Your task to perform on an android device: Is it going to rain today? Image 0: 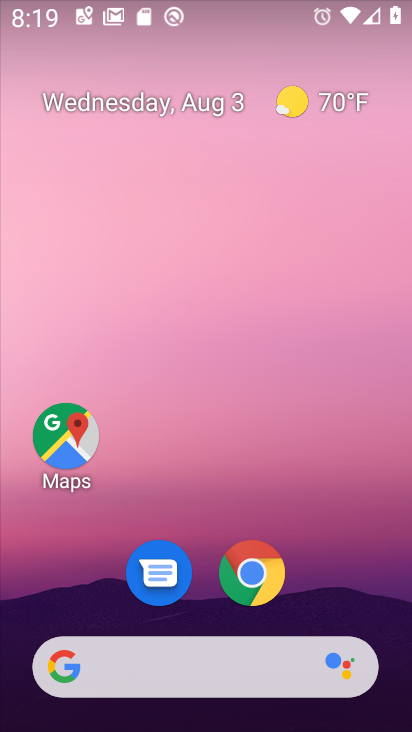
Step 0: click (331, 99)
Your task to perform on an android device: Is it going to rain today? Image 1: 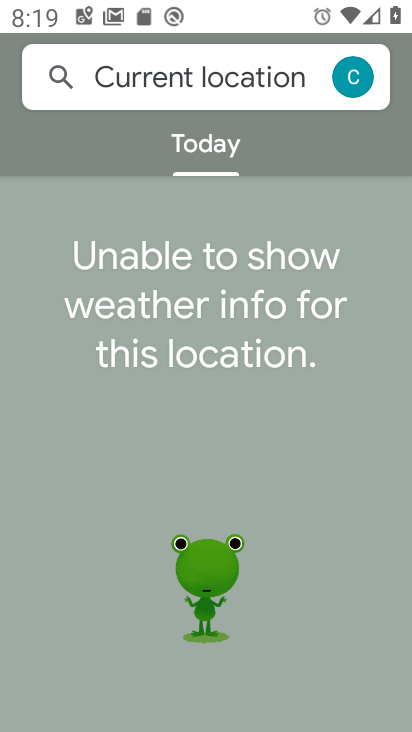
Step 1: click (248, 364)
Your task to perform on an android device: Is it going to rain today? Image 2: 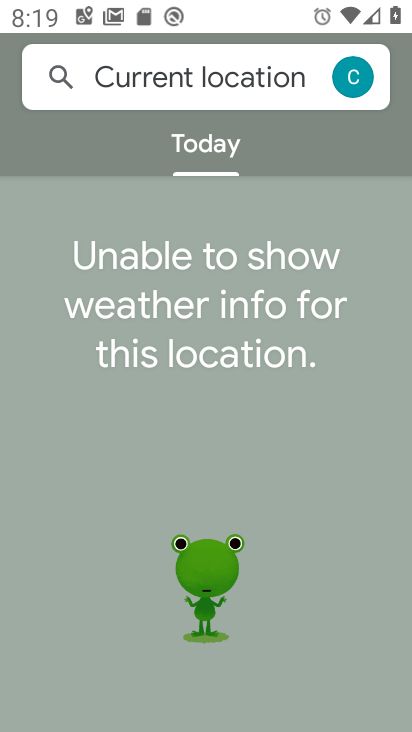
Step 2: drag from (277, 361) to (7, 472)
Your task to perform on an android device: Is it going to rain today? Image 3: 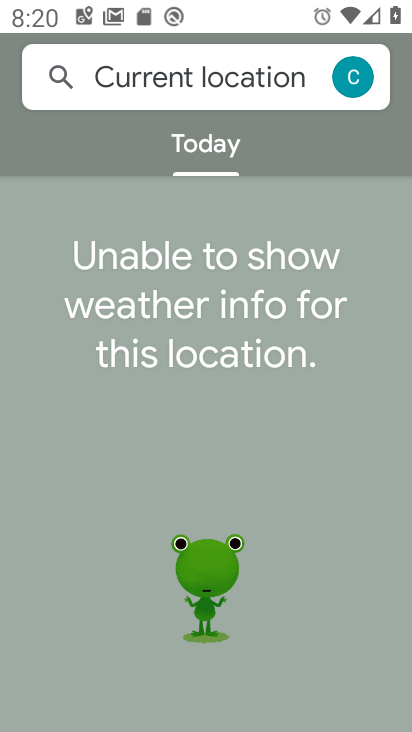
Step 3: press back button
Your task to perform on an android device: Is it going to rain today? Image 4: 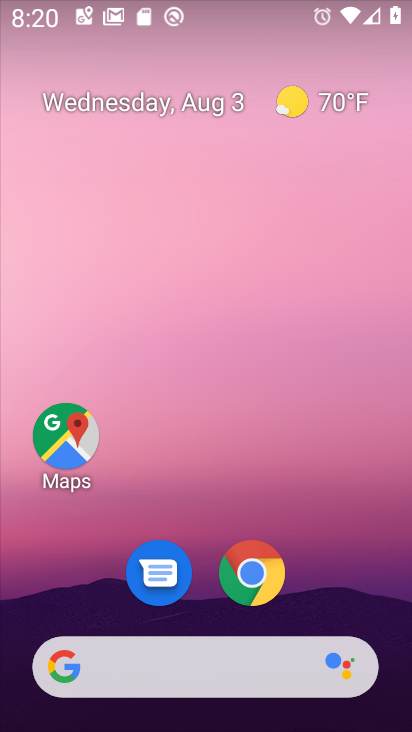
Step 4: click (169, 673)
Your task to perform on an android device: Is it going to rain today? Image 5: 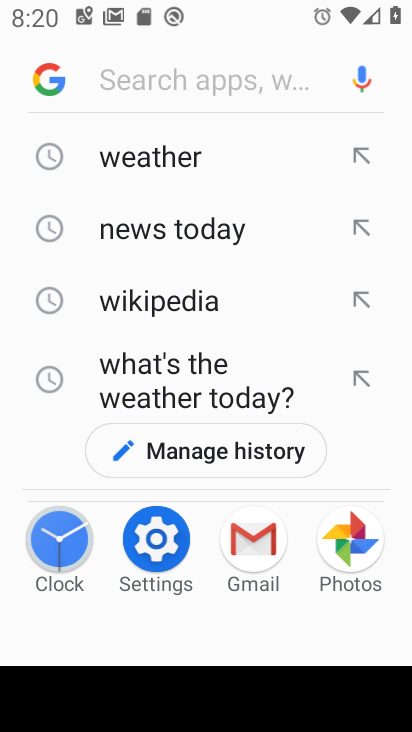
Step 5: click (127, 160)
Your task to perform on an android device: Is it going to rain today? Image 6: 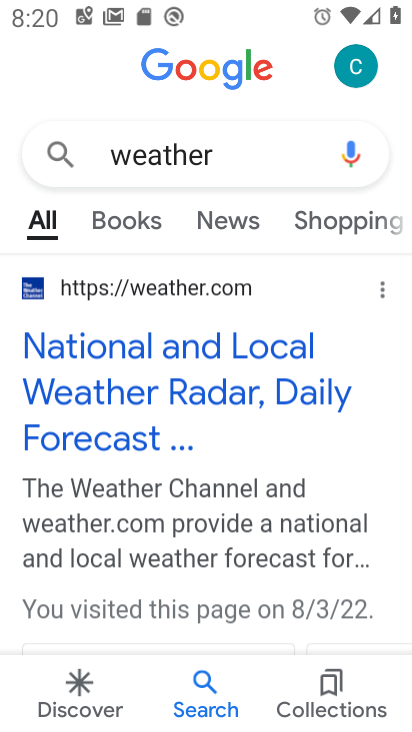
Step 6: click (120, 294)
Your task to perform on an android device: Is it going to rain today? Image 7: 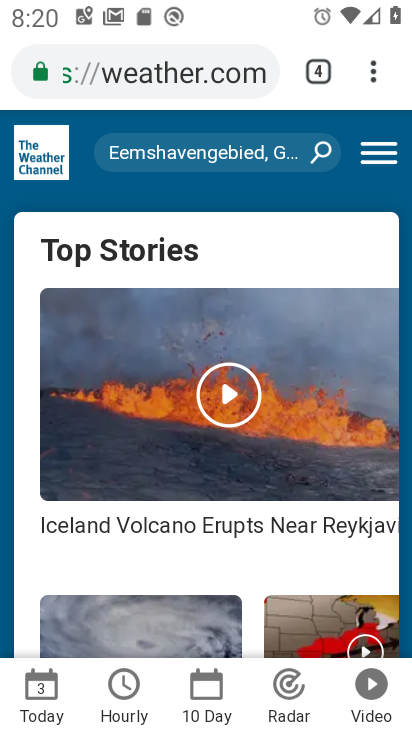
Step 7: click (43, 697)
Your task to perform on an android device: Is it going to rain today? Image 8: 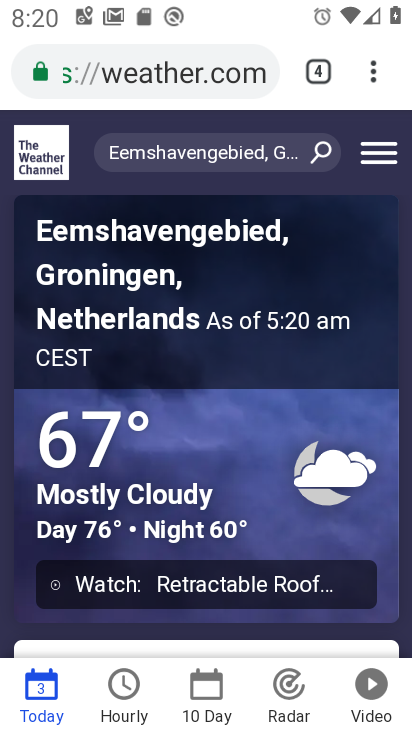
Step 8: task complete